Your task to perform on an android device: clear all cookies in the chrome app Image 0: 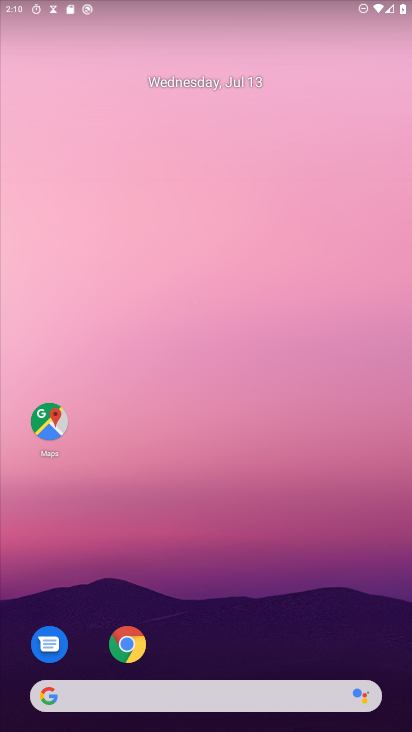
Step 0: press home button
Your task to perform on an android device: clear all cookies in the chrome app Image 1: 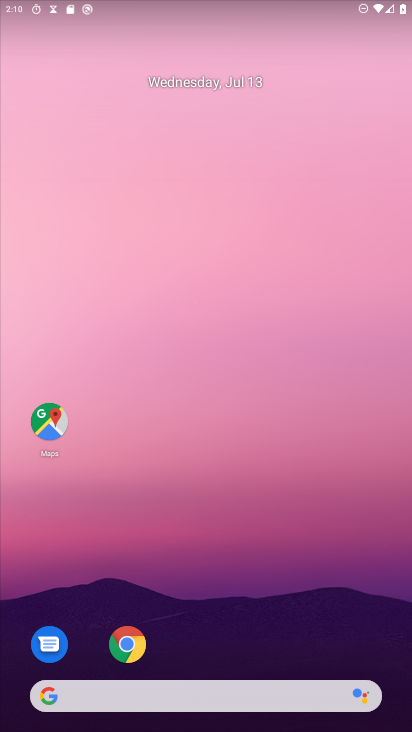
Step 1: click (127, 647)
Your task to perform on an android device: clear all cookies in the chrome app Image 2: 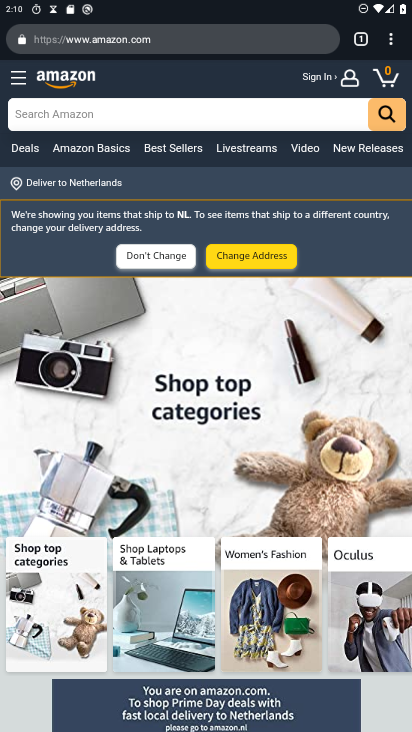
Step 2: drag from (395, 44) to (261, 479)
Your task to perform on an android device: clear all cookies in the chrome app Image 3: 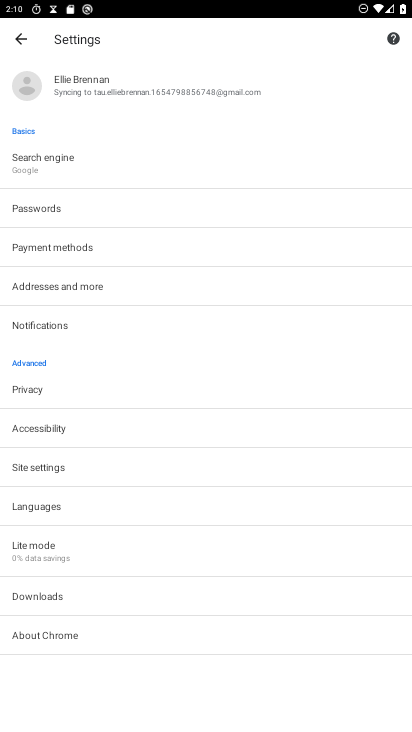
Step 3: click (28, 390)
Your task to perform on an android device: clear all cookies in the chrome app Image 4: 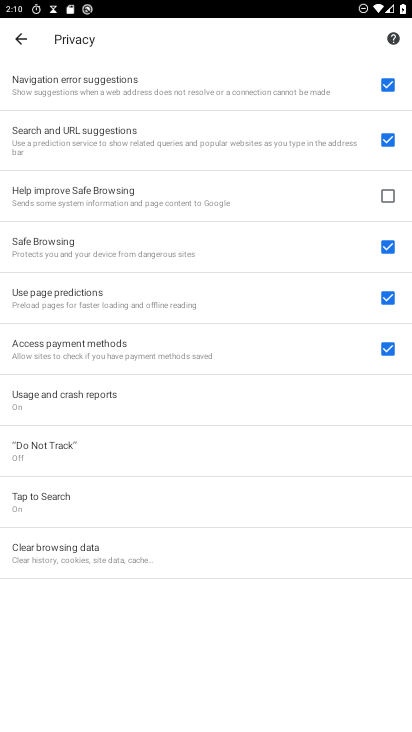
Step 4: click (88, 540)
Your task to perform on an android device: clear all cookies in the chrome app Image 5: 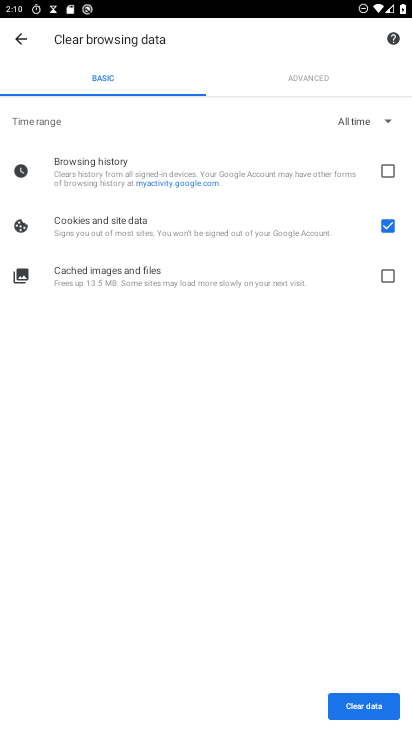
Step 5: click (373, 704)
Your task to perform on an android device: clear all cookies in the chrome app Image 6: 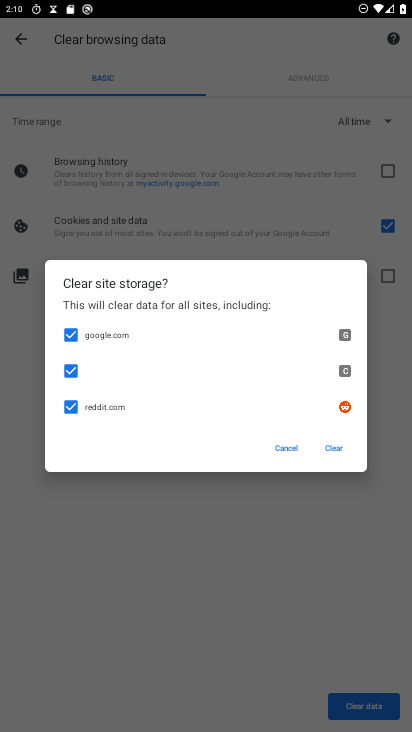
Step 6: click (327, 449)
Your task to perform on an android device: clear all cookies in the chrome app Image 7: 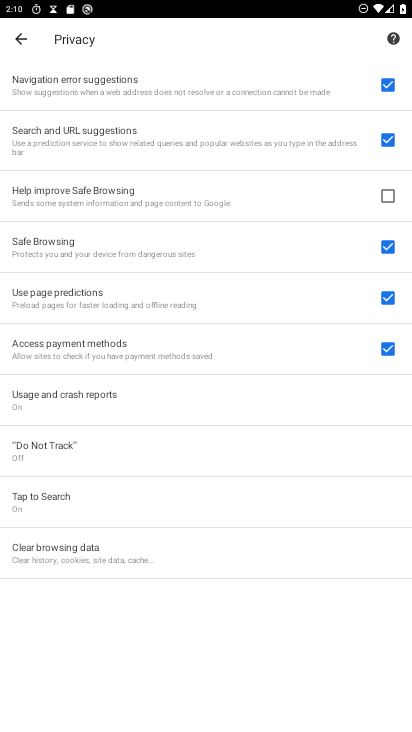
Step 7: task complete